Your task to perform on an android device: empty trash in the gmail app Image 0: 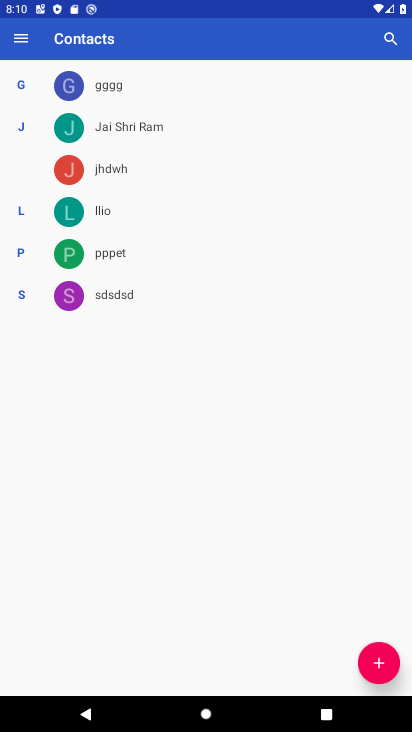
Step 0: press home button
Your task to perform on an android device: empty trash in the gmail app Image 1: 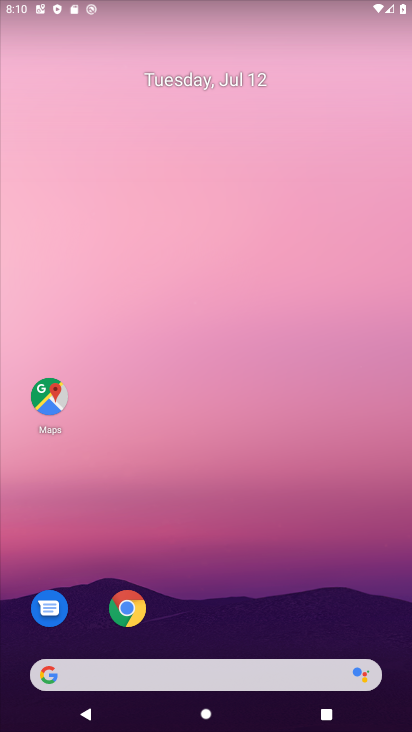
Step 1: drag from (169, 629) to (132, 49)
Your task to perform on an android device: empty trash in the gmail app Image 2: 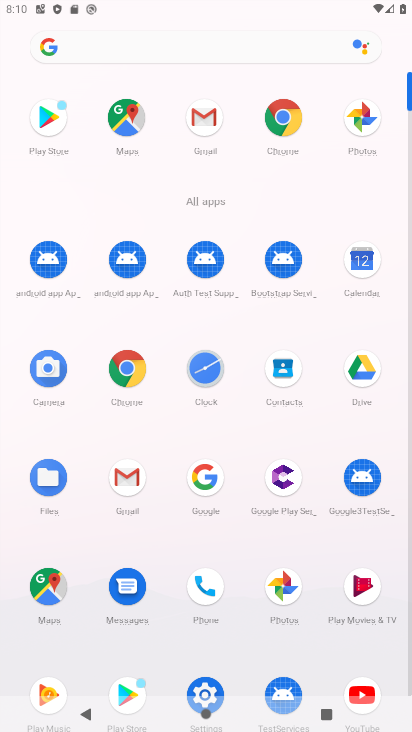
Step 2: click (203, 133)
Your task to perform on an android device: empty trash in the gmail app Image 3: 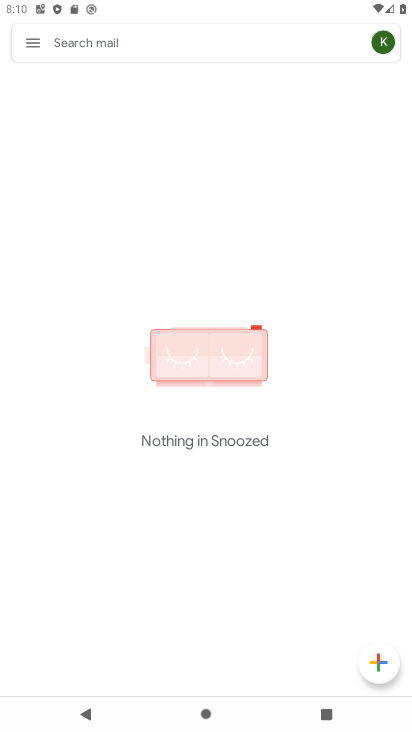
Step 3: click (36, 37)
Your task to perform on an android device: empty trash in the gmail app Image 4: 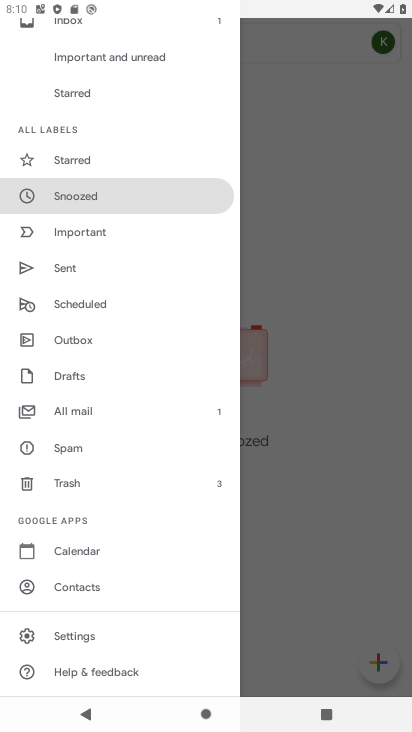
Step 4: click (116, 476)
Your task to perform on an android device: empty trash in the gmail app Image 5: 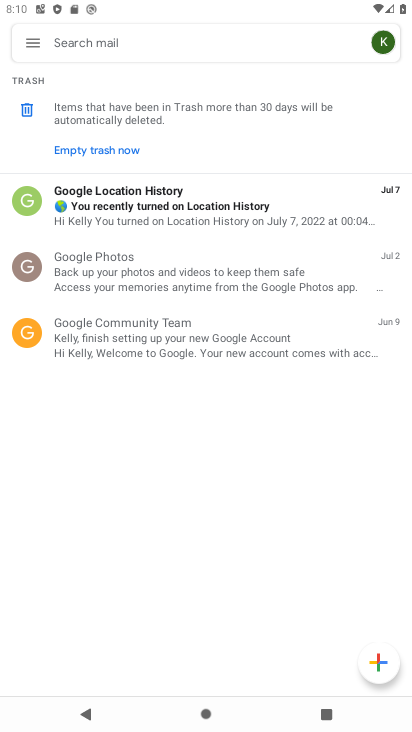
Step 5: click (82, 154)
Your task to perform on an android device: empty trash in the gmail app Image 6: 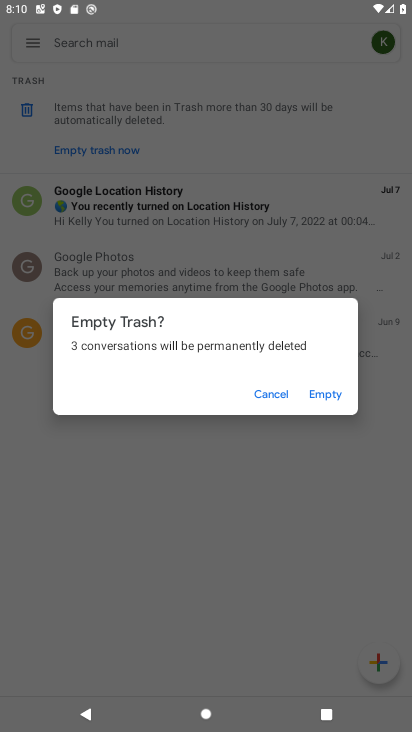
Step 6: click (316, 387)
Your task to perform on an android device: empty trash in the gmail app Image 7: 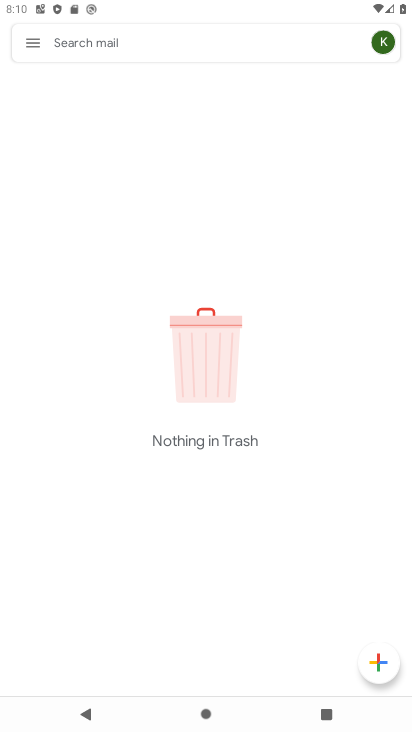
Step 7: task complete